Your task to perform on an android device: toggle javascript in the chrome app Image 0: 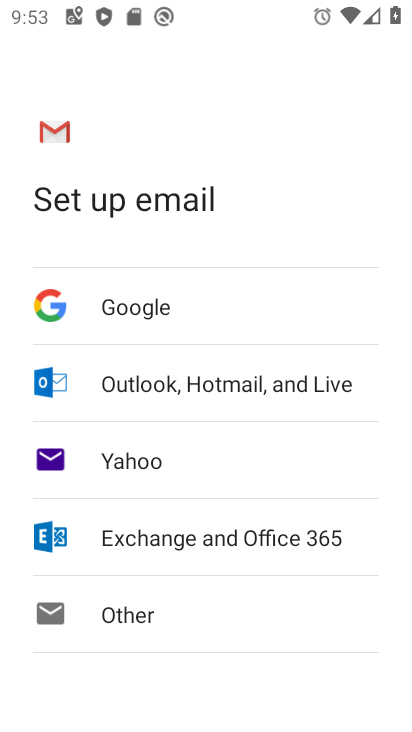
Step 0: press home button
Your task to perform on an android device: toggle javascript in the chrome app Image 1: 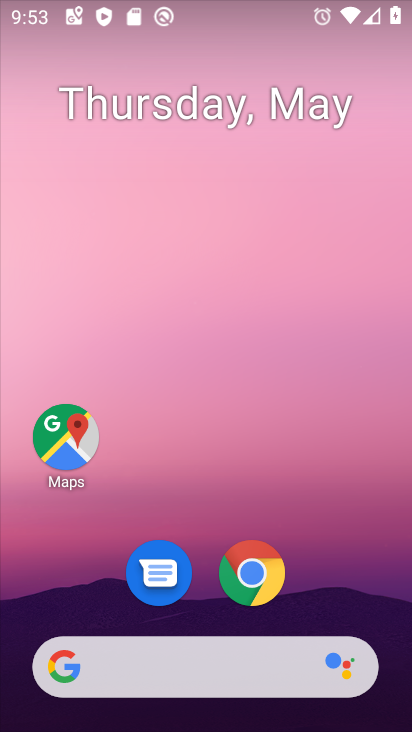
Step 1: click (261, 580)
Your task to perform on an android device: toggle javascript in the chrome app Image 2: 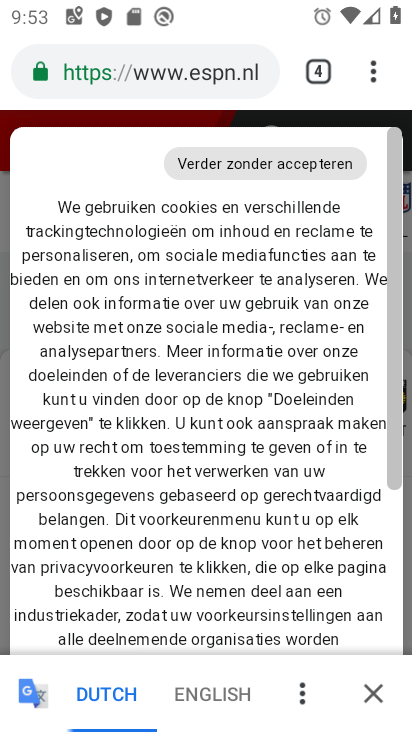
Step 2: drag from (367, 69) to (138, 550)
Your task to perform on an android device: toggle javascript in the chrome app Image 3: 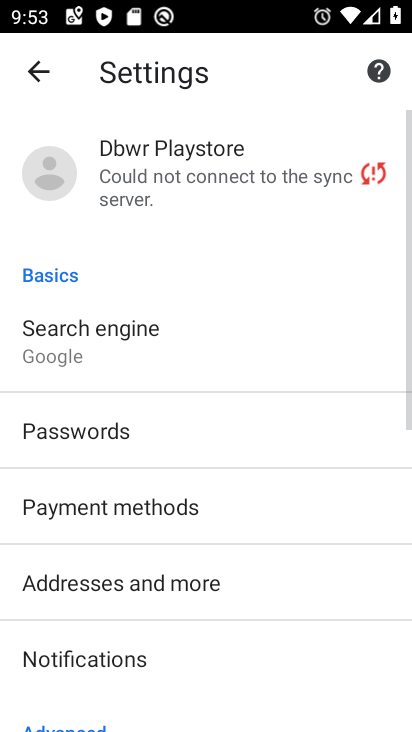
Step 3: drag from (172, 607) to (184, 308)
Your task to perform on an android device: toggle javascript in the chrome app Image 4: 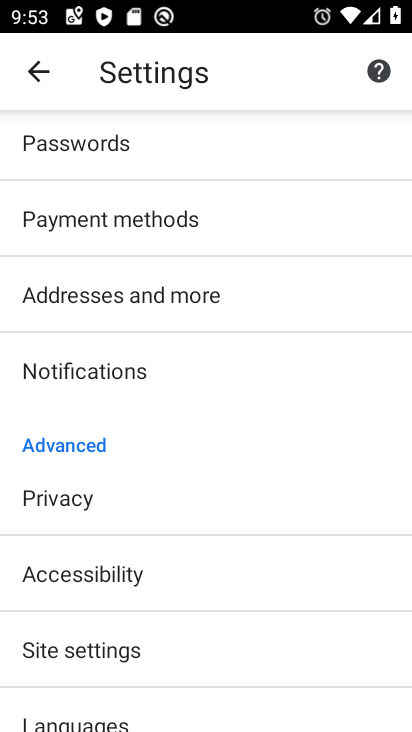
Step 4: click (118, 663)
Your task to perform on an android device: toggle javascript in the chrome app Image 5: 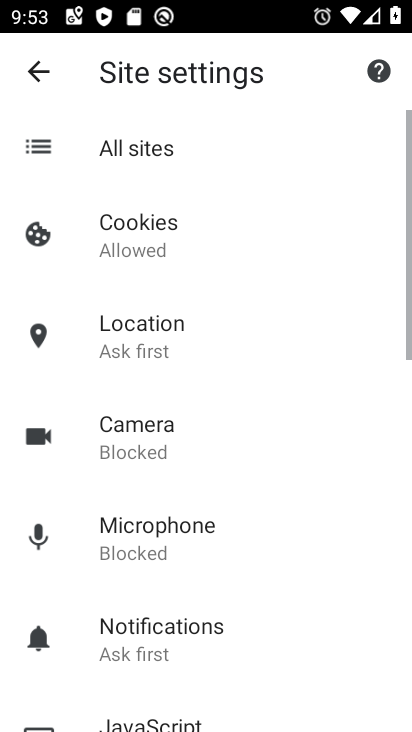
Step 5: drag from (193, 647) to (201, 366)
Your task to perform on an android device: toggle javascript in the chrome app Image 6: 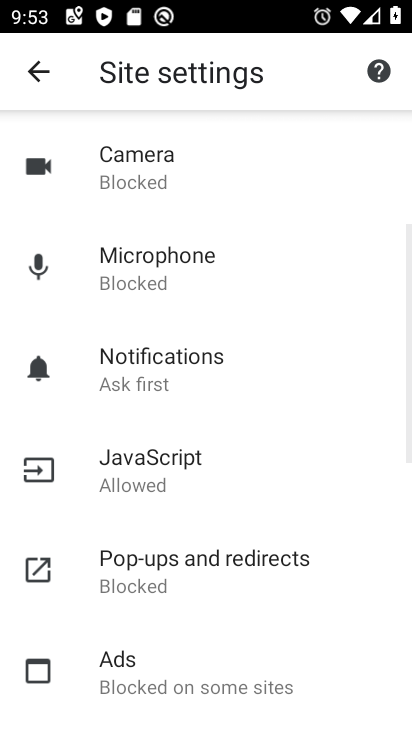
Step 6: click (158, 468)
Your task to perform on an android device: toggle javascript in the chrome app Image 7: 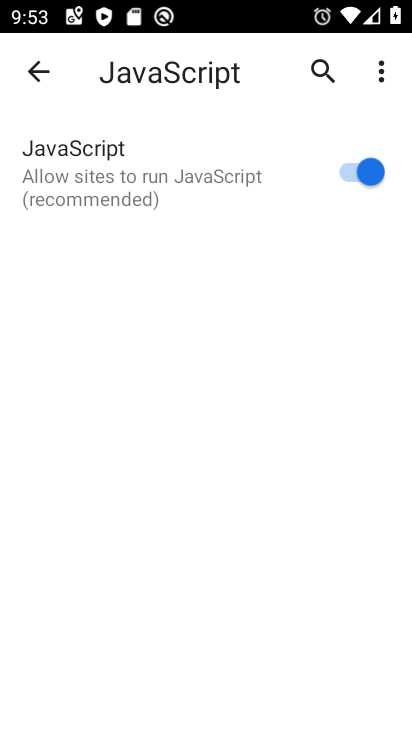
Step 7: click (347, 180)
Your task to perform on an android device: toggle javascript in the chrome app Image 8: 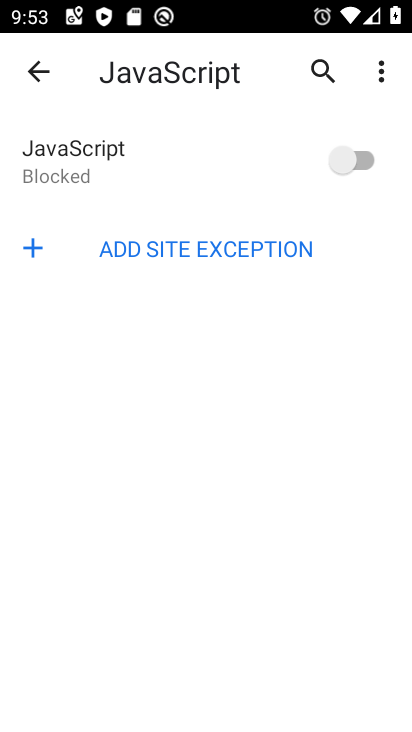
Step 8: task complete